Your task to perform on an android device: turn off location Image 0: 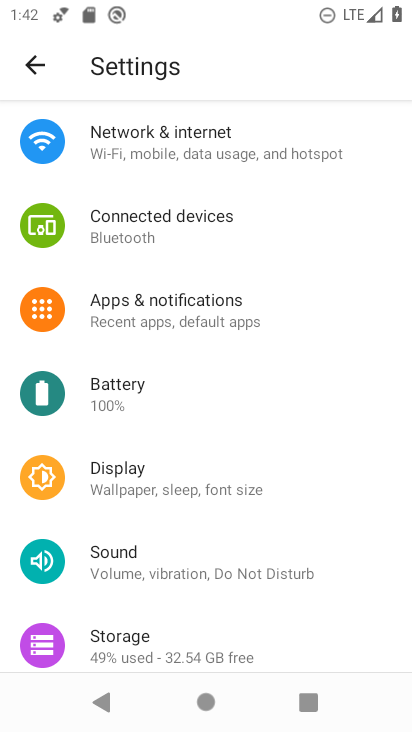
Step 0: drag from (170, 639) to (244, 152)
Your task to perform on an android device: turn off location Image 1: 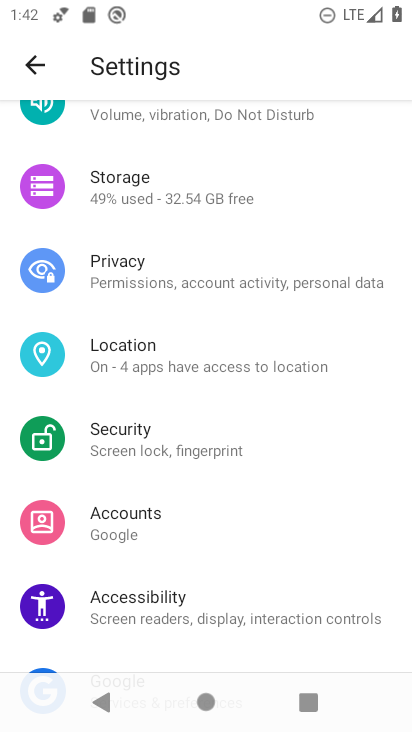
Step 1: click (239, 372)
Your task to perform on an android device: turn off location Image 2: 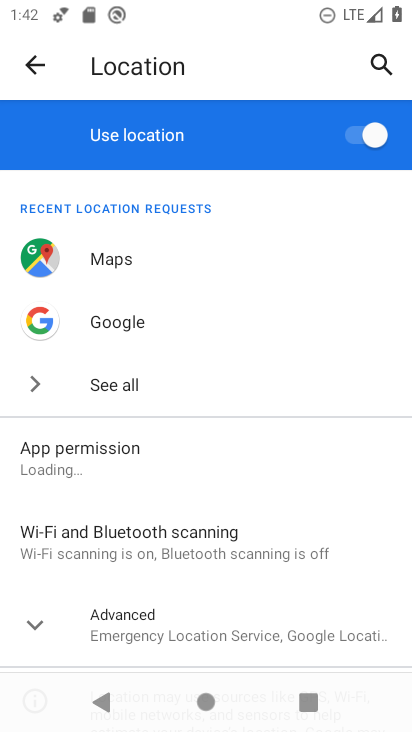
Step 2: click (369, 138)
Your task to perform on an android device: turn off location Image 3: 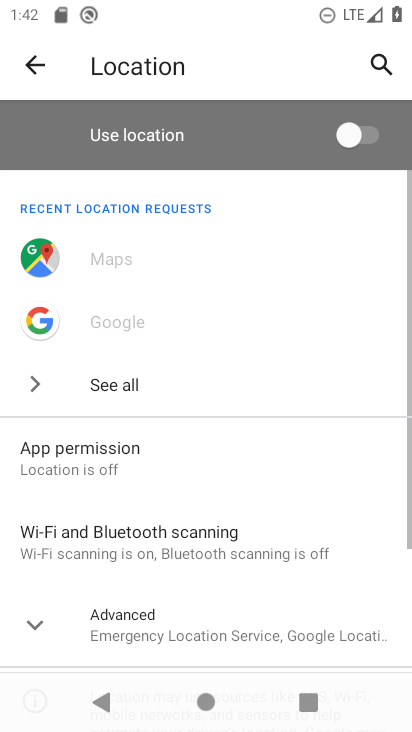
Step 3: task complete